Your task to perform on an android device: What is the average speed of a car? Image 0: 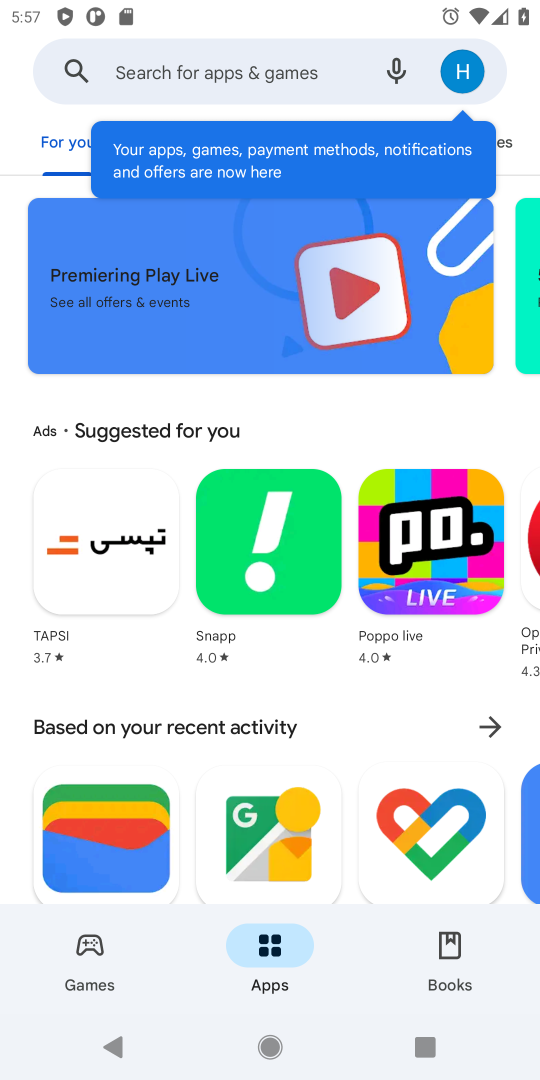
Step 0: press home button
Your task to perform on an android device: What is the average speed of a car? Image 1: 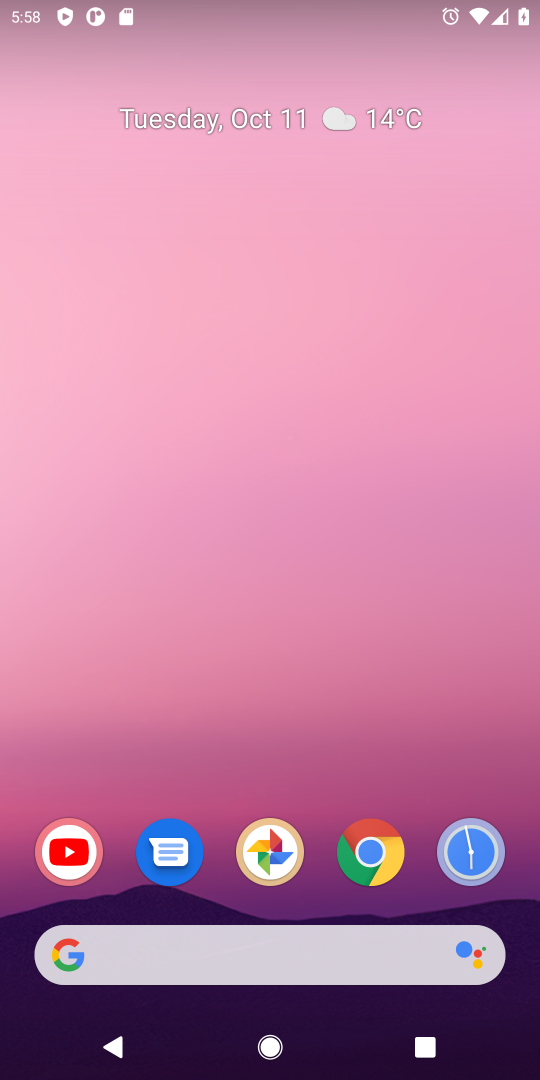
Step 1: click (372, 858)
Your task to perform on an android device: What is the average speed of a car? Image 2: 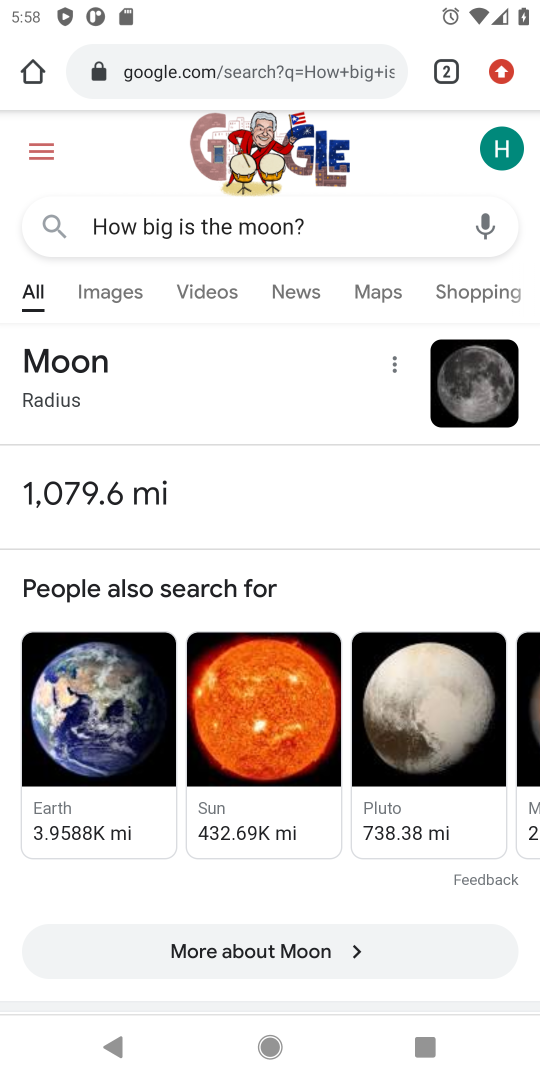
Step 2: click (234, 64)
Your task to perform on an android device: What is the average speed of a car? Image 3: 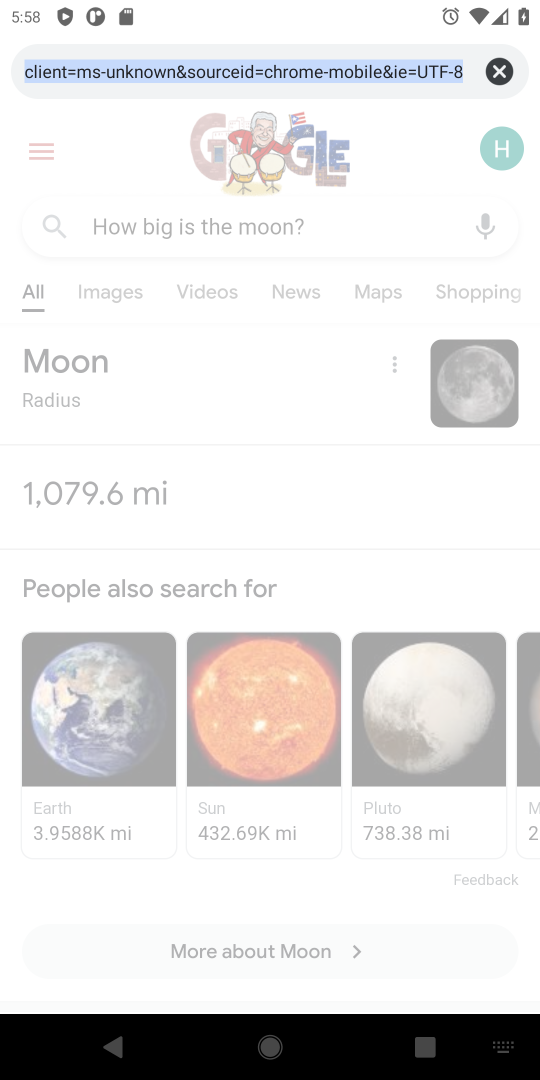
Step 3: type "What is the average speed of a car?"
Your task to perform on an android device: What is the average speed of a car? Image 4: 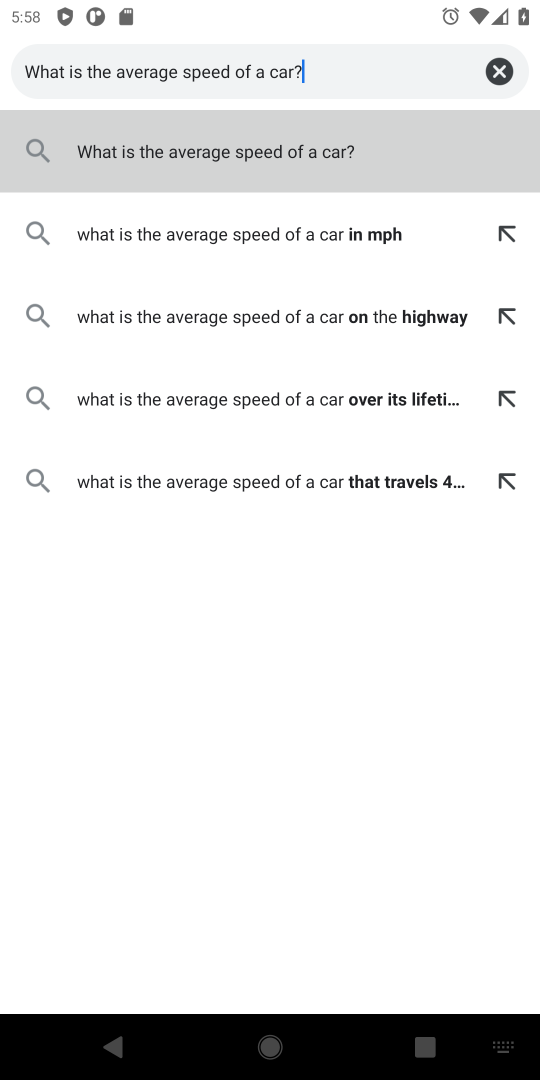
Step 4: click (353, 154)
Your task to perform on an android device: What is the average speed of a car? Image 5: 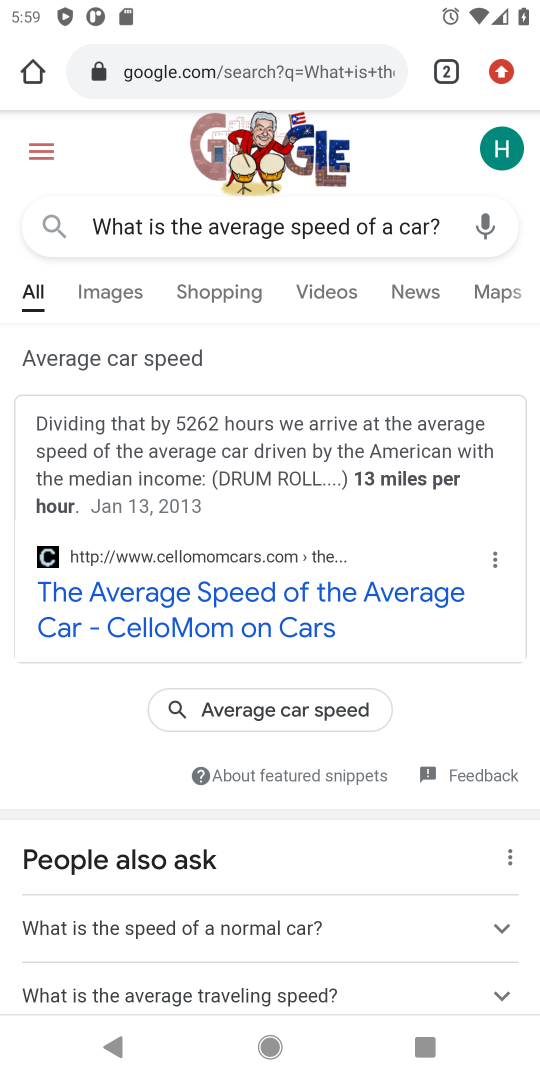
Step 5: task complete